Your task to perform on an android device: Open notification settings Image 0: 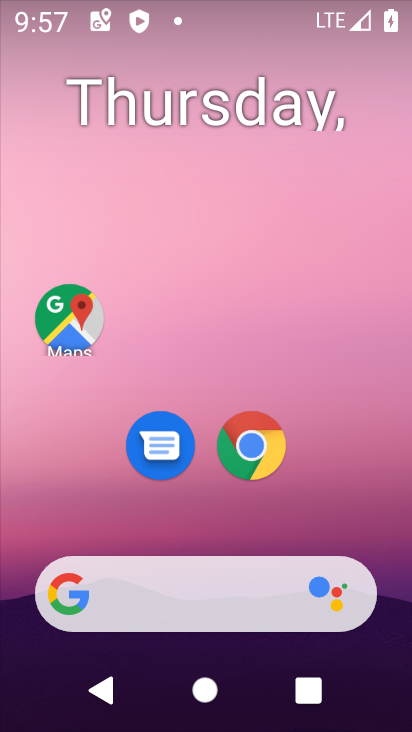
Step 0: drag from (177, 541) to (176, 194)
Your task to perform on an android device: Open notification settings Image 1: 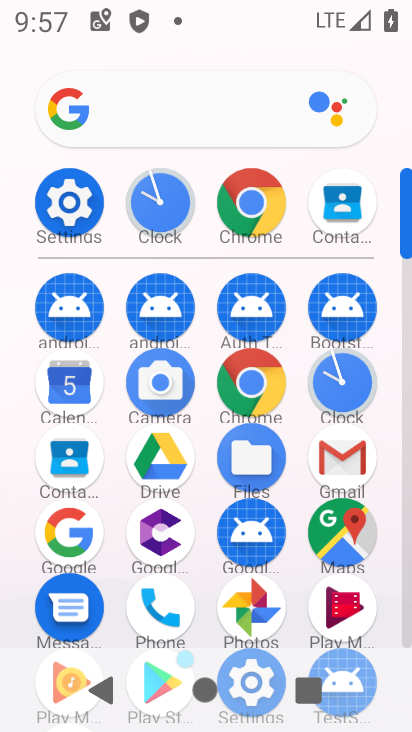
Step 1: click (68, 195)
Your task to perform on an android device: Open notification settings Image 2: 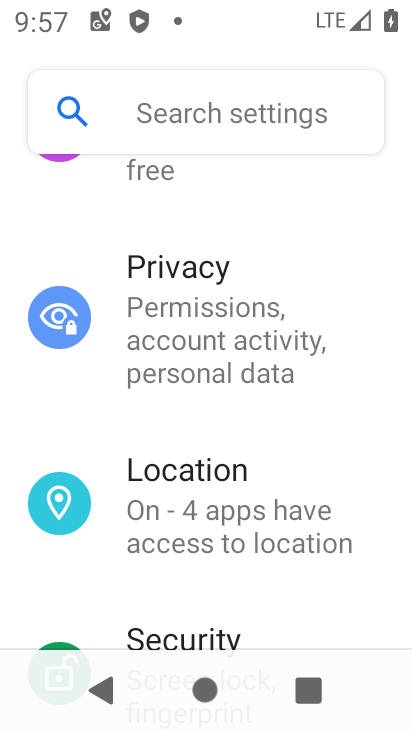
Step 2: drag from (207, 204) to (225, 537)
Your task to perform on an android device: Open notification settings Image 3: 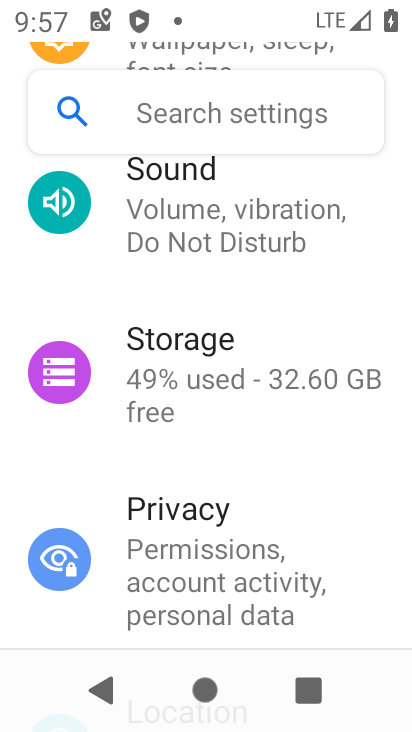
Step 3: drag from (245, 234) to (275, 444)
Your task to perform on an android device: Open notification settings Image 4: 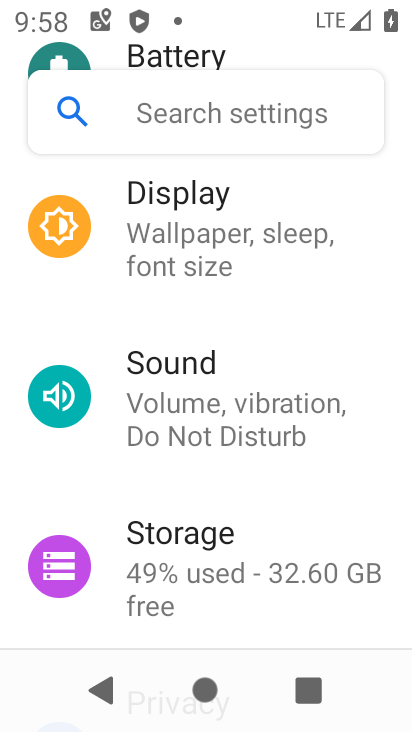
Step 4: drag from (238, 160) to (248, 451)
Your task to perform on an android device: Open notification settings Image 5: 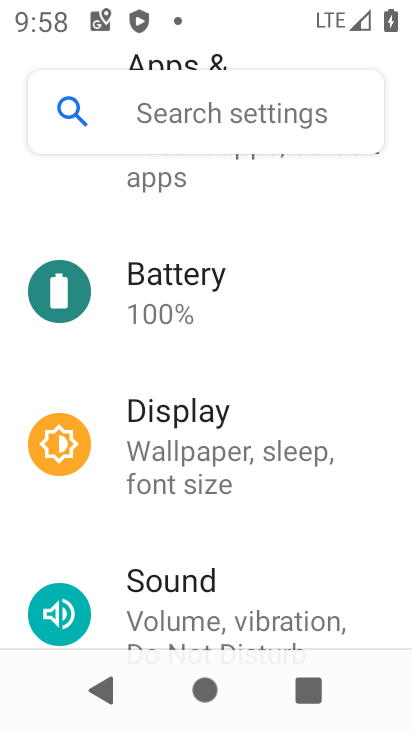
Step 5: drag from (168, 243) to (173, 542)
Your task to perform on an android device: Open notification settings Image 6: 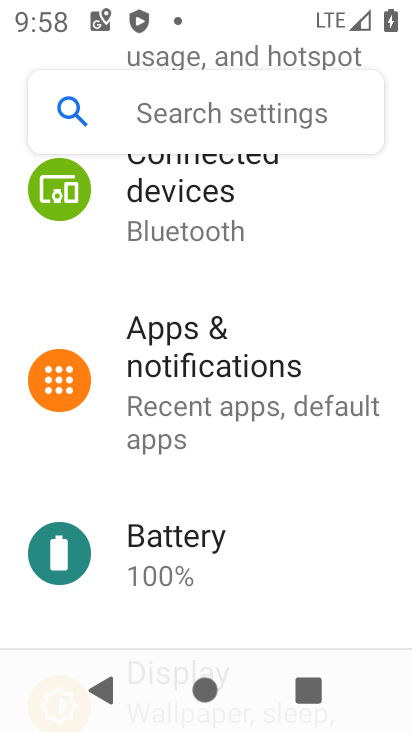
Step 6: click (208, 374)
Your task to perform on an android device: Open notification settings Image 7: 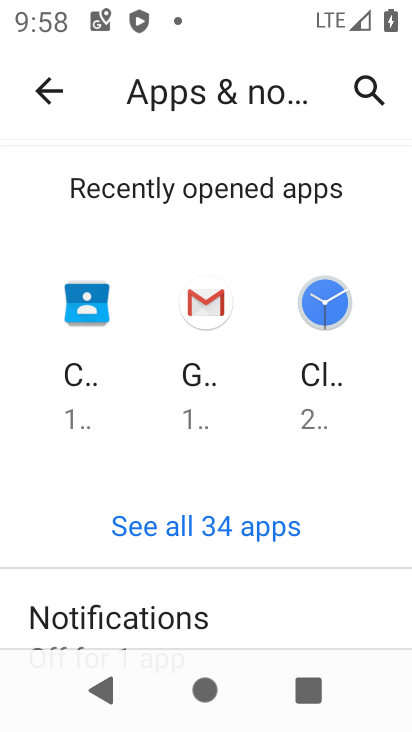
Step 7: drag from (135, 612) to (135, 306)
Your task to perform on an android device: Open notification settings Image 8: 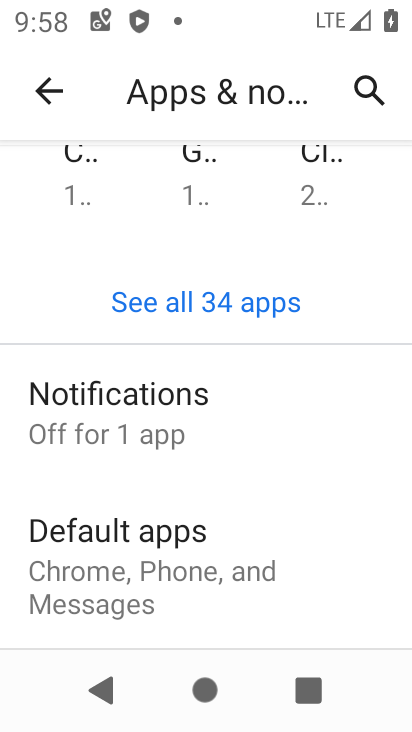
Step 8: click (127, 425)
Your task to perform on an android device: Open notification settings Image 9: 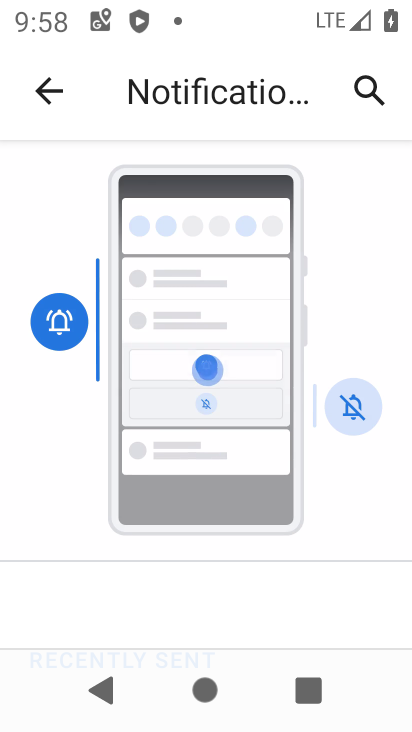
Step 9: task complete